Your task to perform on an android device: Show me the alarms in the clock app Image 0: 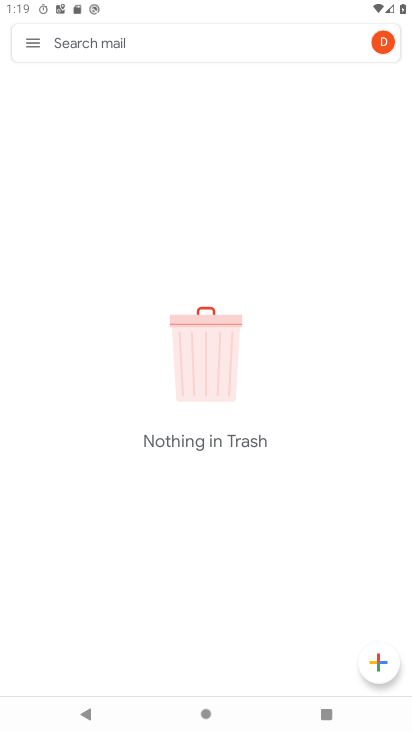
Step 0: press home button
Your task to perform on an android device: Show me the alarms in the clock app Image 1: 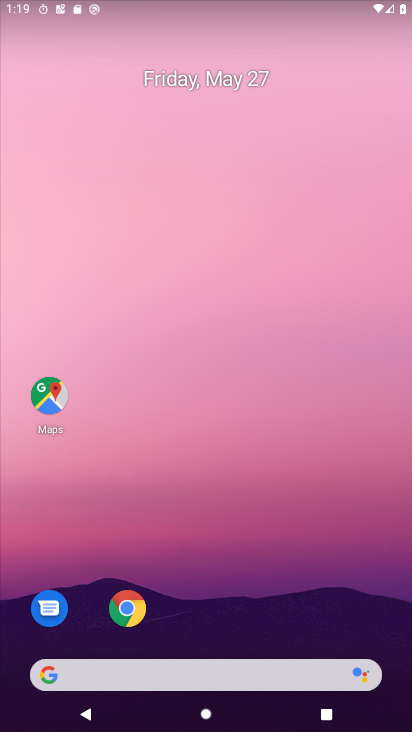
Step 1: drag from (387, 646) to (361, 147)
Your task to perform on an android device: Show me the alarms in the clock app Image 2: 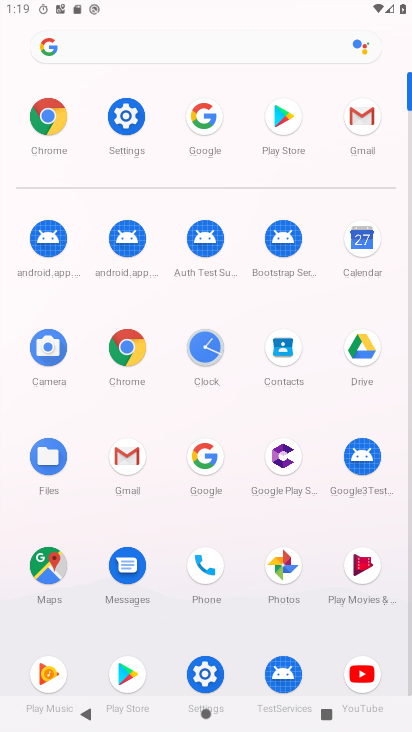
Step 2: click (201, 335)
Your task to perform on an android device: Show me the alarms in the clock app Image 3: 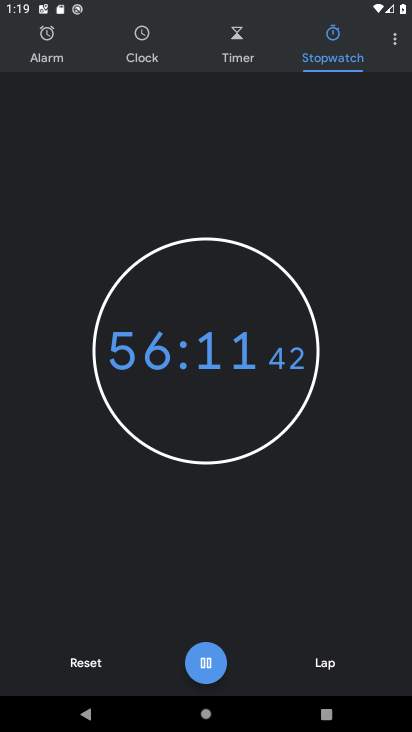
Step 3: click (48, 51)
Your task to perform on an android device: Show me the alarms in the clock app Image 4: 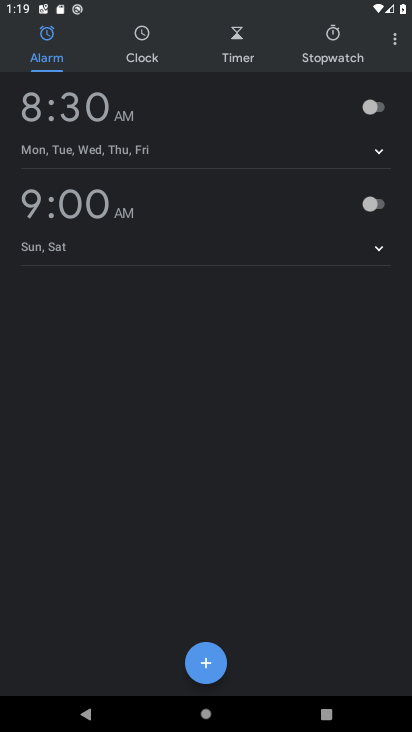
Step 4: task complete